Your task to perform on an android device: check out phone information Image 0: 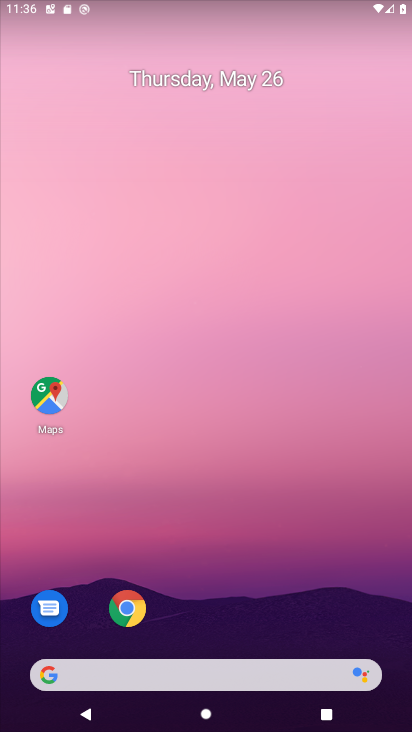
Step 0: drag from (394, 709) to (382, 201)
Your task to perform on an android device: check out phone information Image 1: 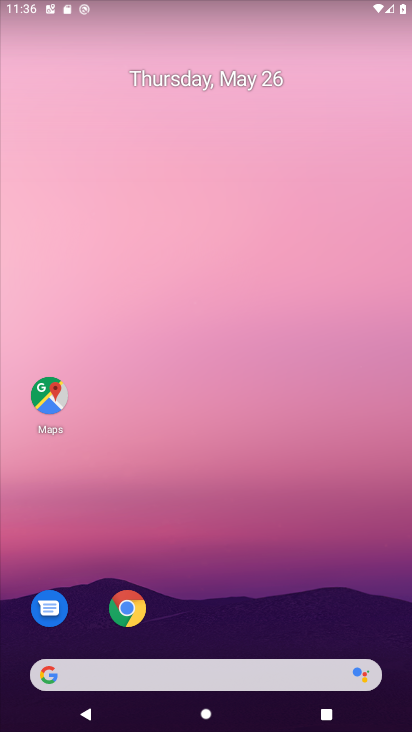
Step 1: drag from (403, 716) to (371, 133)
Your task to perform on an android device: check out phone information Image 2: 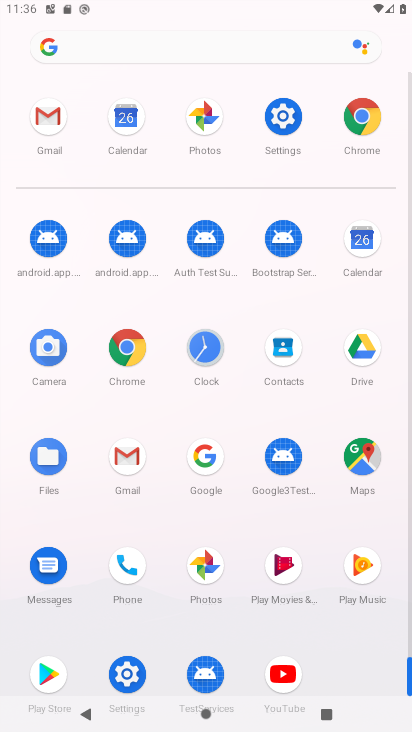
Step 2: click (275, 118)
Your task to perform on an android device: check out phone information Image 3: 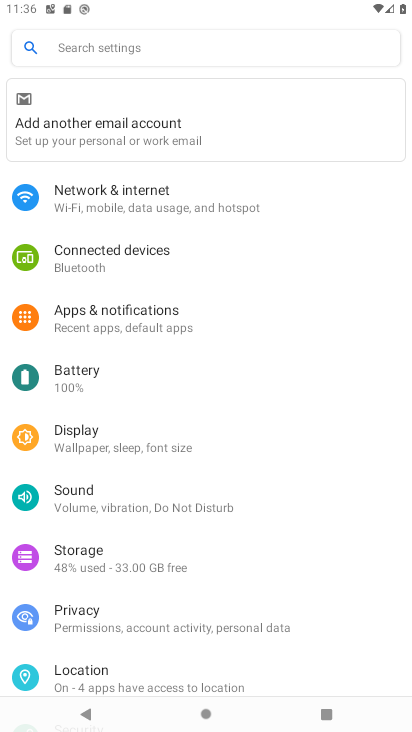
Step 3: drag from (298, 644) to (263, 240)
Your task to perform on an android device: check out phone information Image 4: 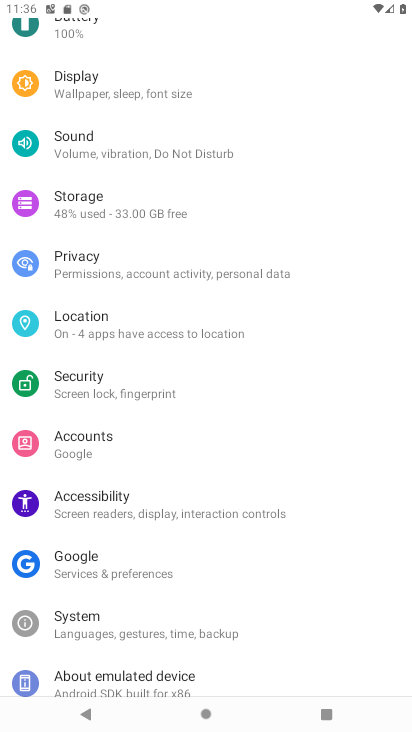
Step 4: drag from (334, 666) to (307, 321)
Your task to perform on an android device: check out phone information Image 5: 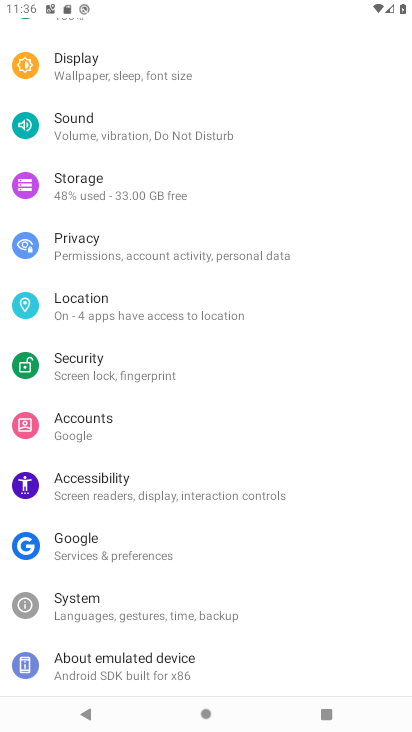
Step 5: click (150, 661)
Your task to perform on an android device: check out phone information Image 6: 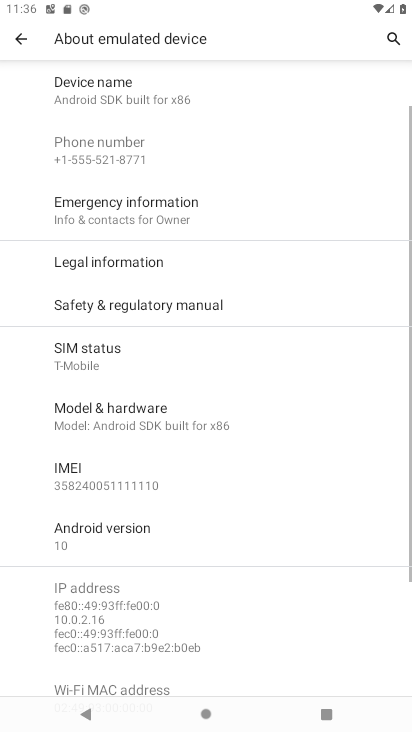
Step 6: task complete